Your task to perform on an android device: open chrome privacy settings Image 0: 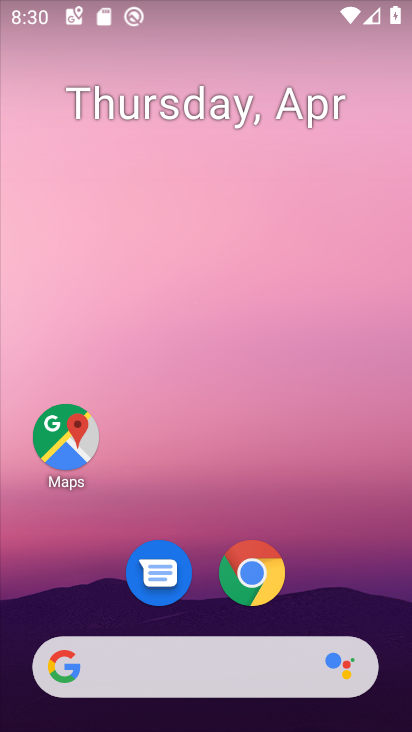
Step 0: click (250, 571)
Your task to perform on an android device: open chrome privacy settings Image 1: 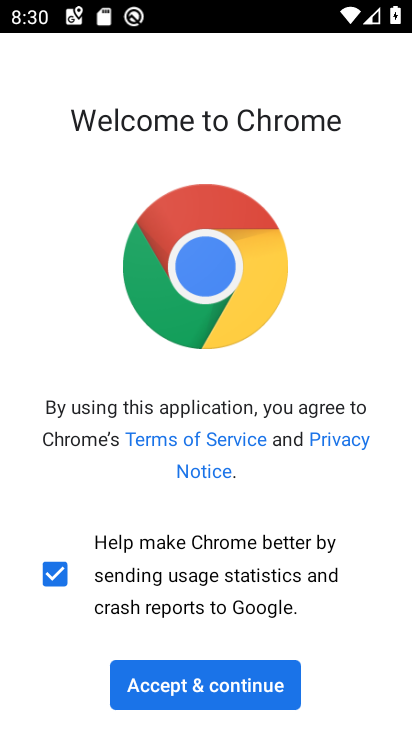
Step 1: click (242, 689)
Your task to perform on an android device: open chrome privacy settings Image 2: 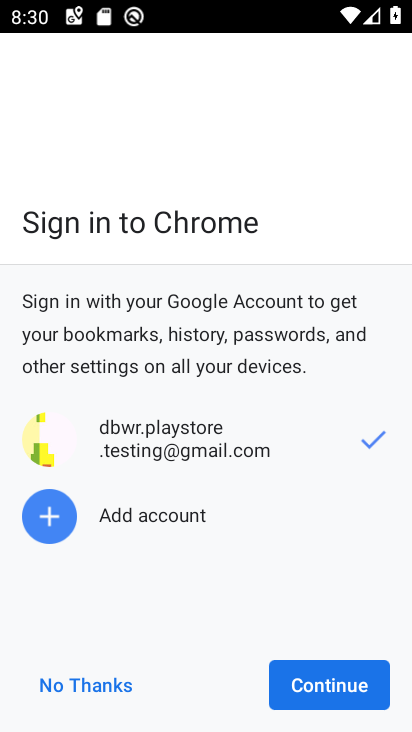
Step 2: click (310, 681)
Your task to perform on an android device: open chrome privacy settings Image 3: 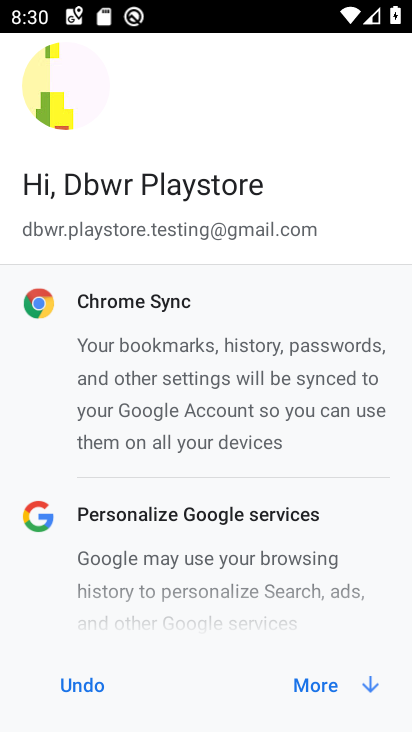
Step 3: click (324, 680)
Your task to perform on an android device: open chrome privacy settings Image 4: 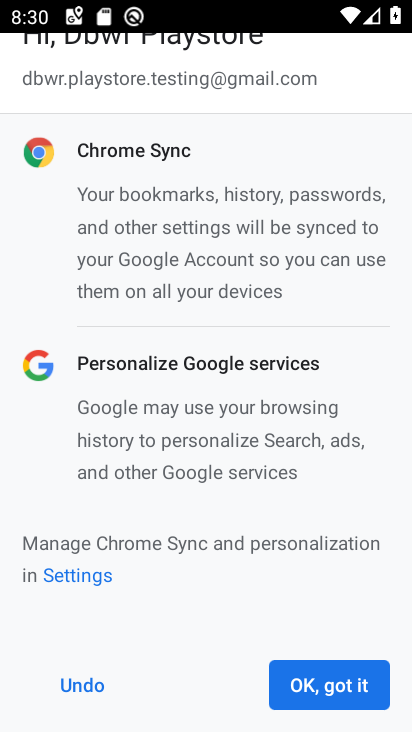
Step 4: click (324, 680)
Your task to perform on an android device: open chrome privacy settings Image 5: 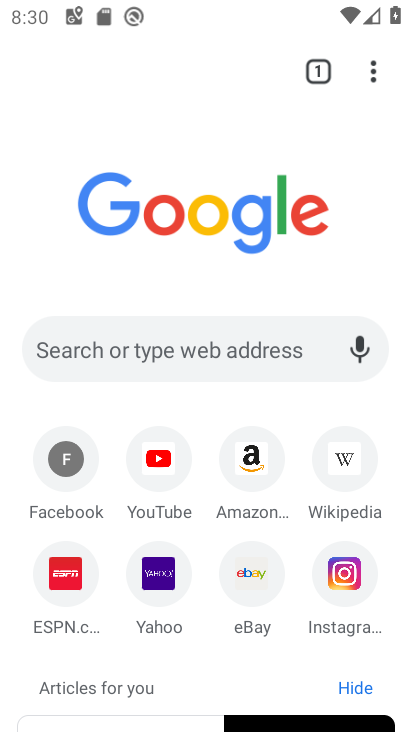
Step 5: click (374, 70)
Your task to perform on an android device: open chrome privacy settings Image 6: 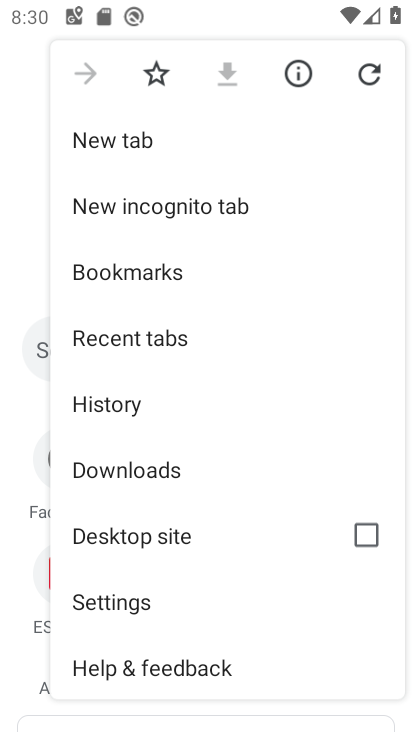
Step 6: click (124, 602)
Your task to perform on an android device: open chrome privacy settings Image 7: 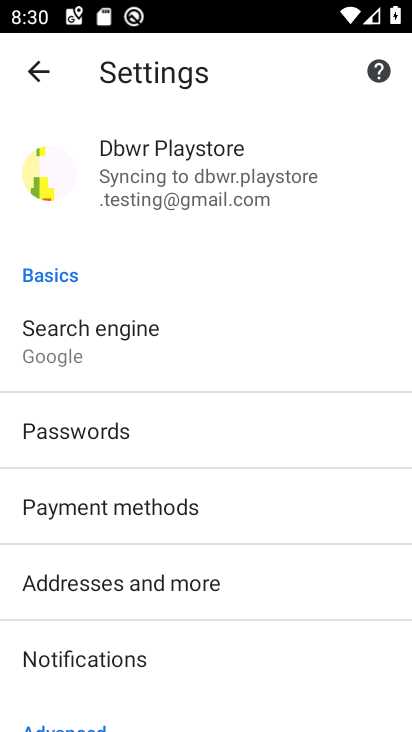
Step 7: drag from (177, 531) to (275, 388)
Your task to perform on an android device: open chrome privacy settings Image 8: 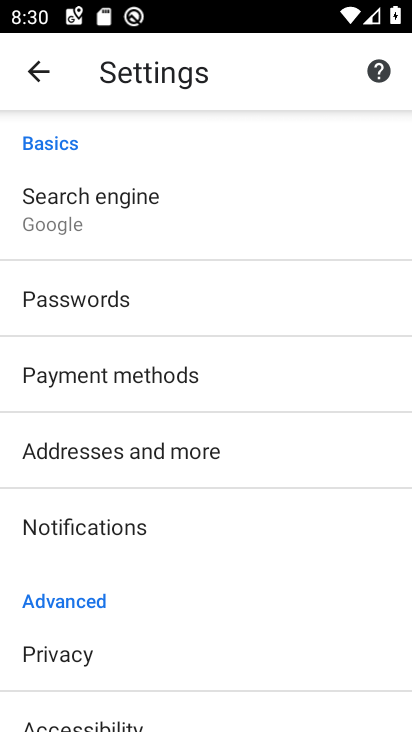
Step 8: drag from (207, 534) to (278, 424)
Your task to perform on an android device: open chrome privacy settings Image 9: 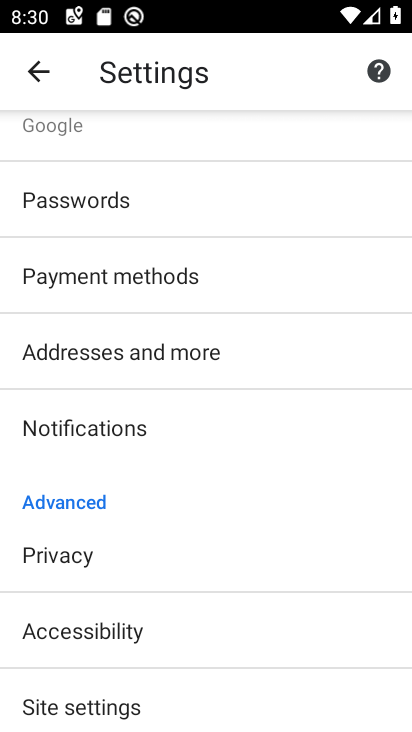
Step 9: click (63, 557)
Your task to perform on an android device: open chrome privacy settings Image 10: 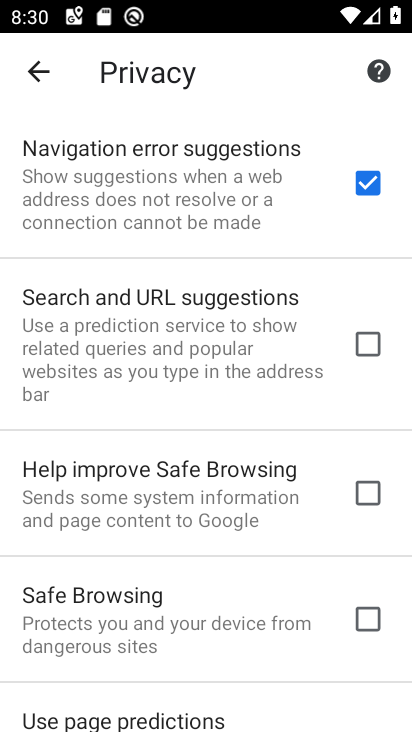
Step 10: task complete